Your task to perform on an android device: Open the calendar and show me this week's events? Image 0: 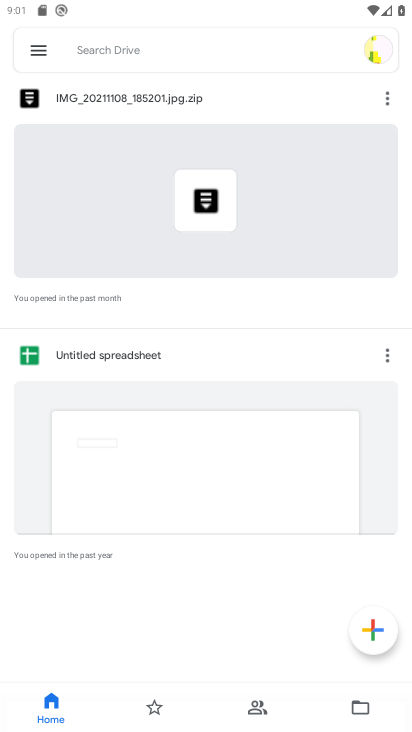
Step 0: press home button
Your task to perform on an android device: Open the calendar and show me this week's events? Image 1: 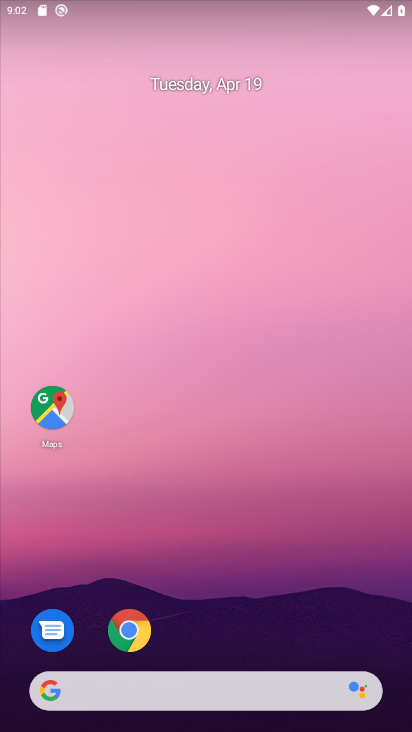
Step 1: drag from (222, 722) to (210, 110)
Your task to perform on an android device: Open the calendar and show me this week's events? Image 2: 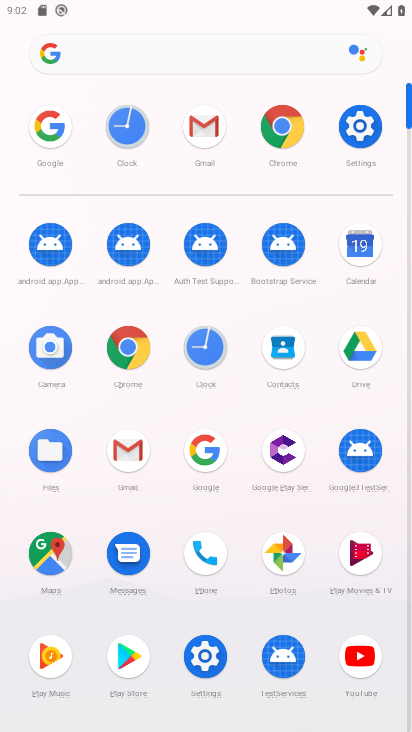
Step 2: click (378, 250)
Your task to perform on an android device: Open the calendar and show me this week's events? Image 3: 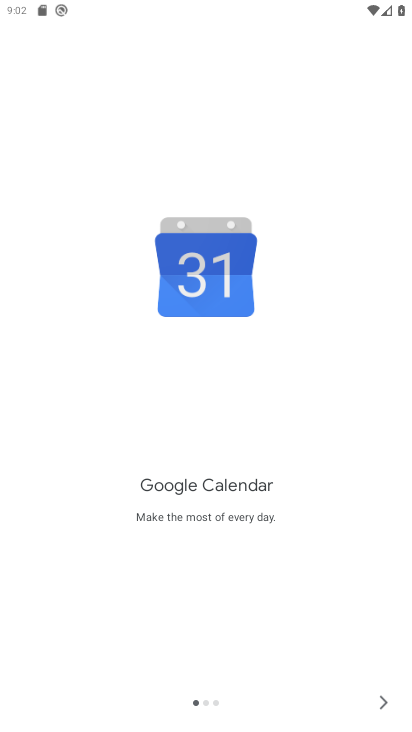
Step 3: click (390, 698)
Your task to perform on an android device: Open the calendar and show me this week's events? Image 4: 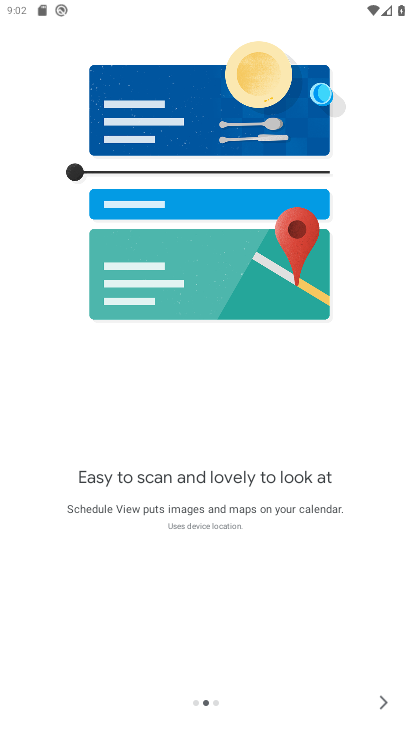
Step 4: click (391, 699)
Your task to perform on an android device: Open the calendar and show me this week's events? Image 5: 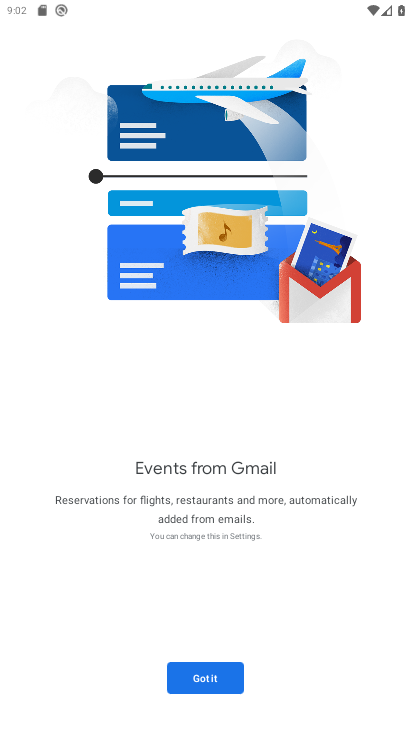
Step 5: click (227, 670)
Your task to perform on an android device: Open the calendar and show me this week's events? Image 6: 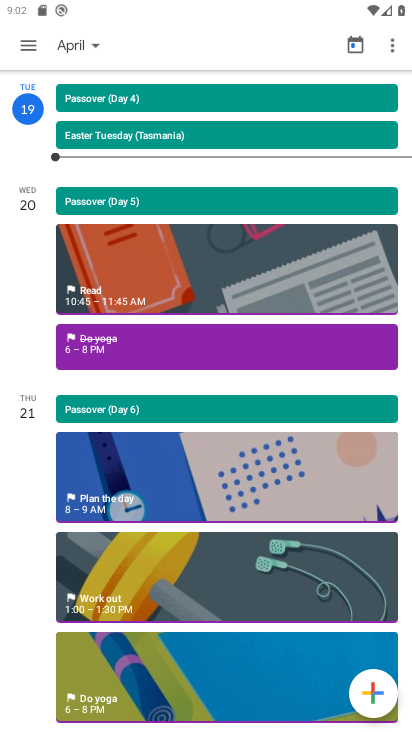
Step 6: task complete